Your task to perform on an android device: clear all cookies in the chrome app Image 0: 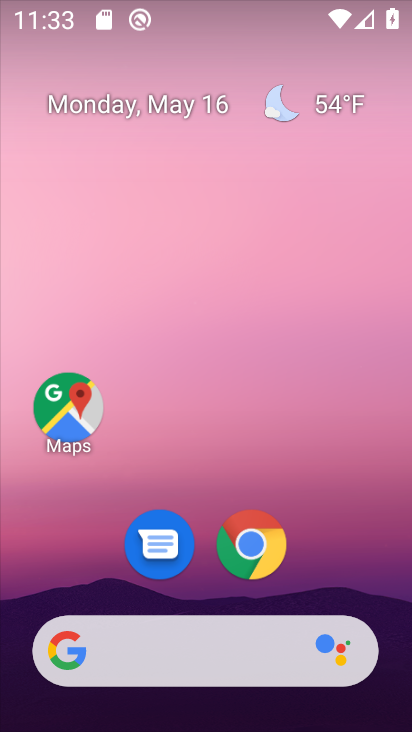
Step 0: click (261, 542)
Your task to perform on an android device: clear all cookies in the chrome app Image 1: 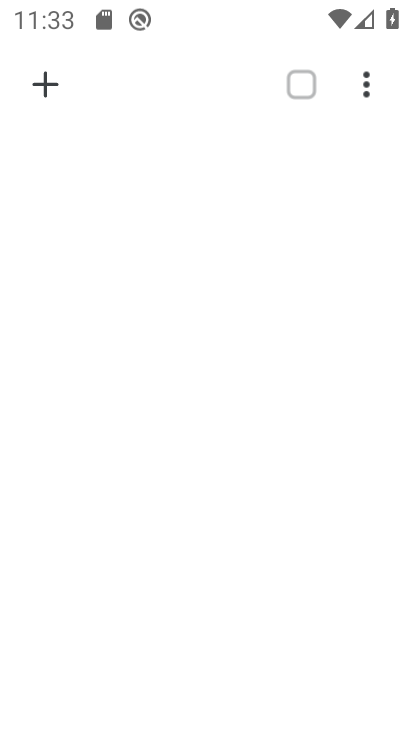
Step 1: click (40, 80)
Your task to perform on an android device: clear all cookies in the chrome app Image 2: 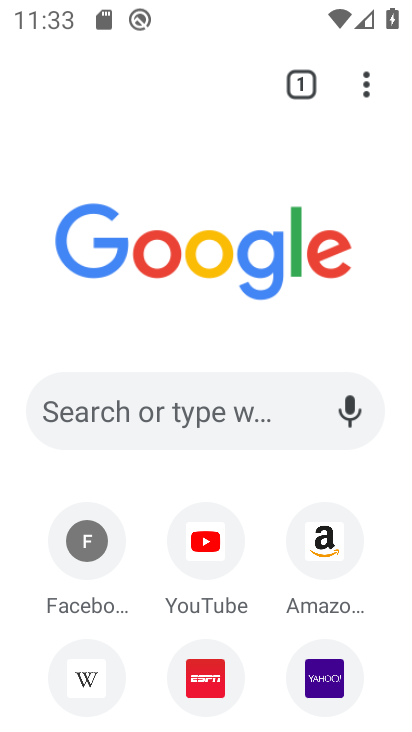
Step 2: click (371, 76)
Your task to perform on an android device: clear all cookies in the chrome app Image 3: 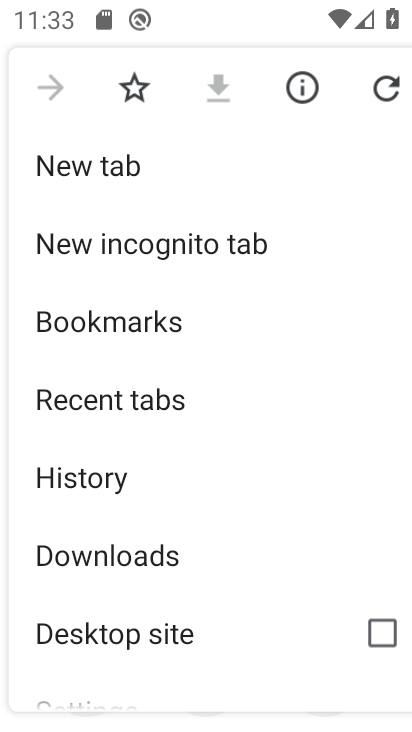
Step 3: click (97, 474)
Your task to perform on an android device: clear all cookies in the chrome app Image 4: 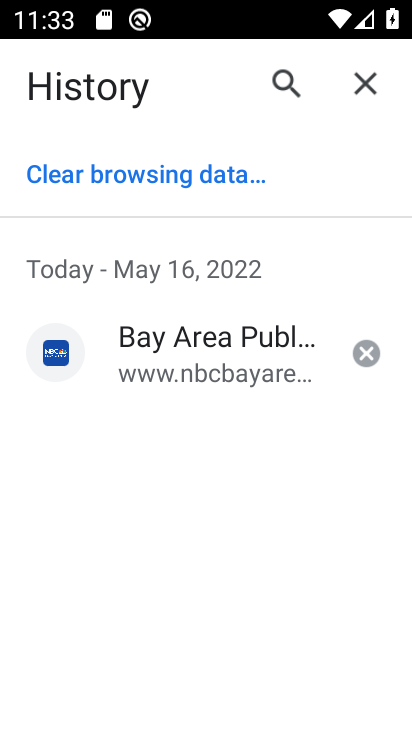
Step 4: click (166, 178)
Your task to perform on an android device: clear all cookies in the chrome app Image 5: 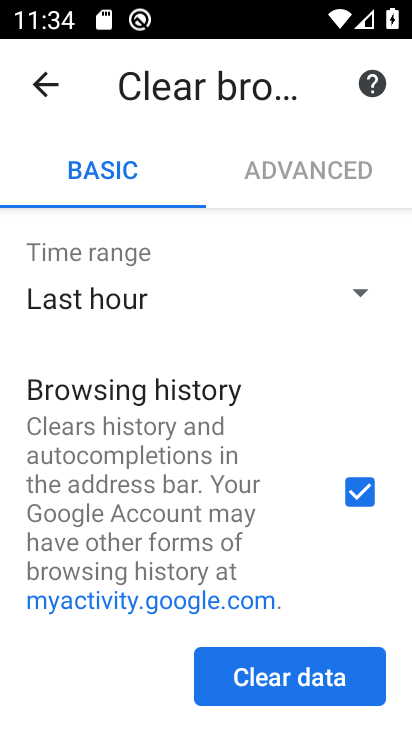
Step 5: click (320, 689)
Your task to perform on an android device: clear all cookies in the chrome app Image 6: 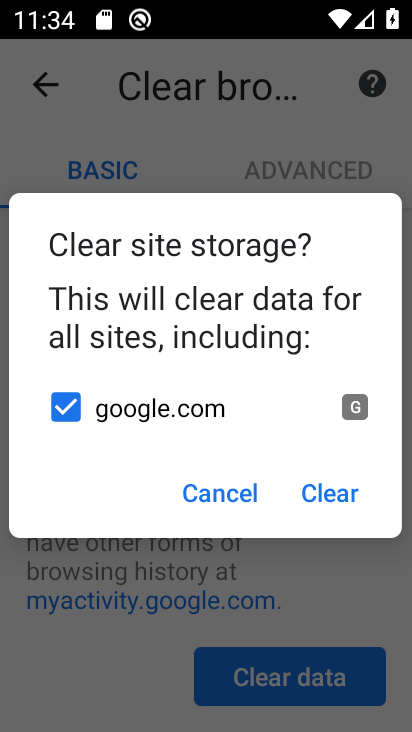
Step 6: click (325, 494)
Your task to perform on an android device: clear all cookies in the chrome app Image 7: 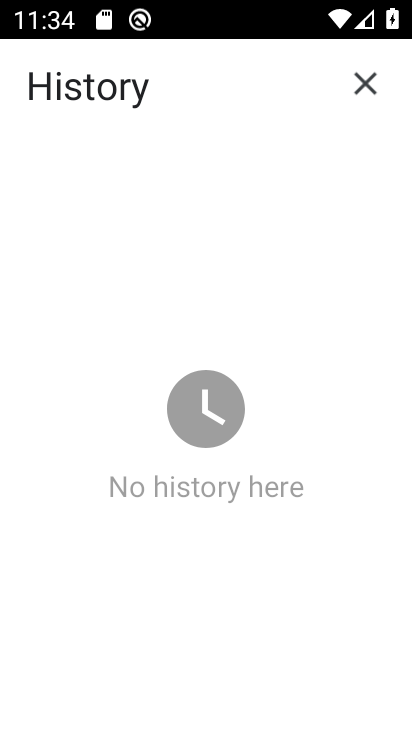
Step 7: task complete